Your task to perform on an android device: turn off translation in the chrome app Image 0: 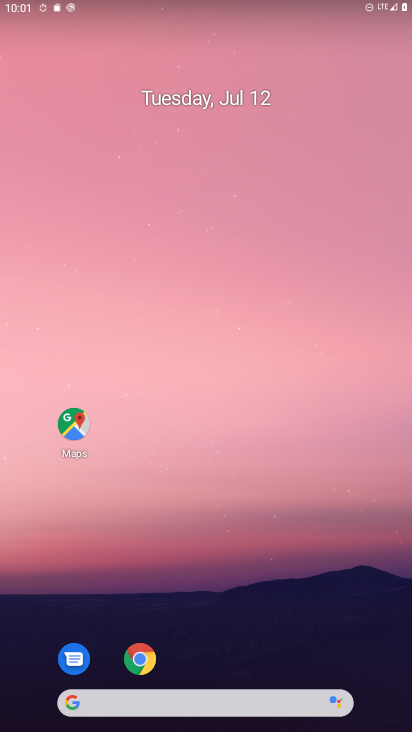
Step 0: drag from (370, 692) to (229, 18)
Your task to perform on an android device: turn off translation in the chrome app Image 1: 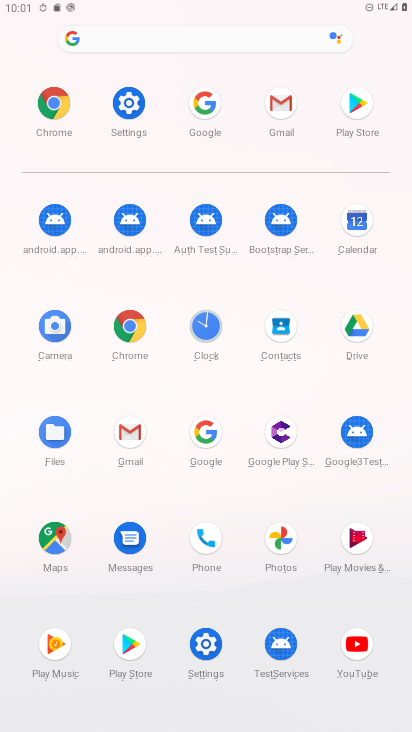
Step 1: click (140, 325)
Your task to perform on an android device: turn off translation in the chrome app Image 2: 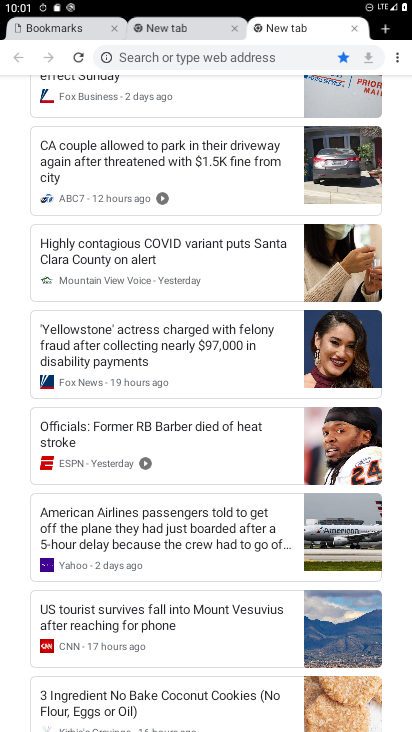
Step 2: click (397, 51)
Your task to perform on an android device: turn off translation in the chrome app Image 3: 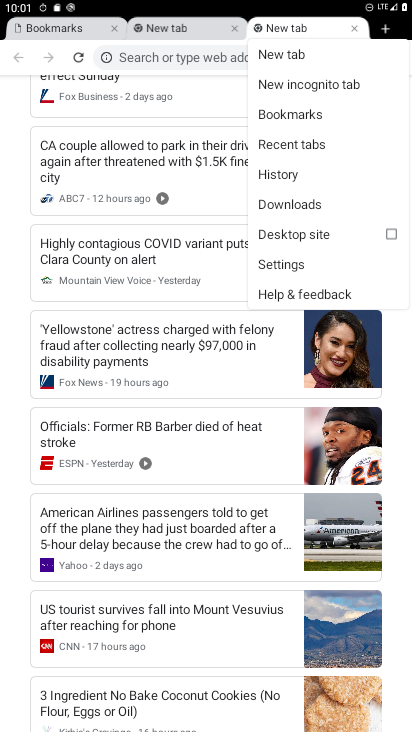
Step 3: click (300, 261)
Your task to perform on an android device: turn off translation in the chrome app Image 4: 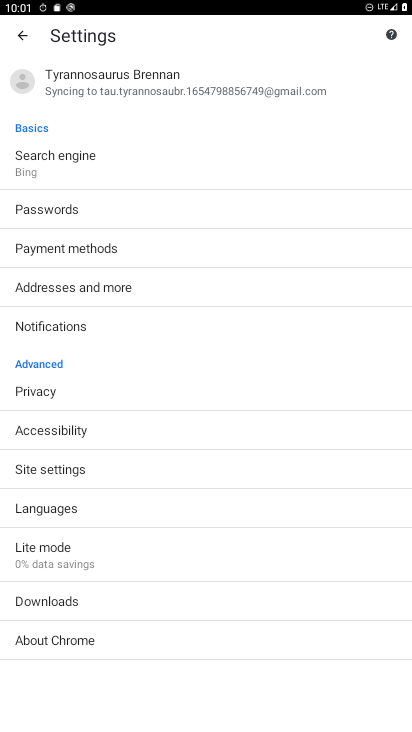
Step 4: click (118, 506)
Your task to perform on an android device: turn off translation in the chrome app Image 5: 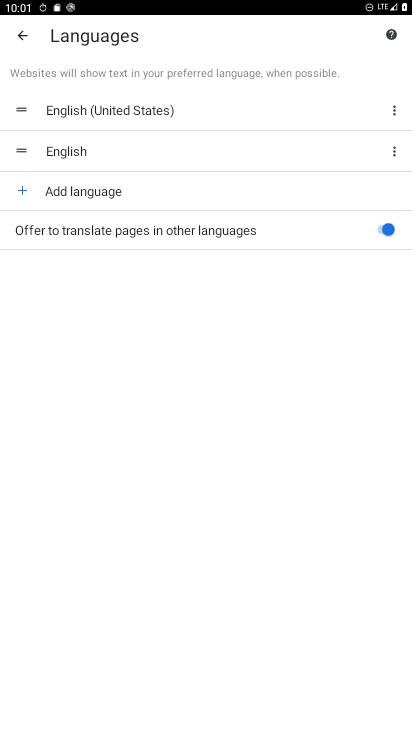
Step 5: click (377, 224)
Your task to perform on an android device: turn off translation in the chrome app Image 6: 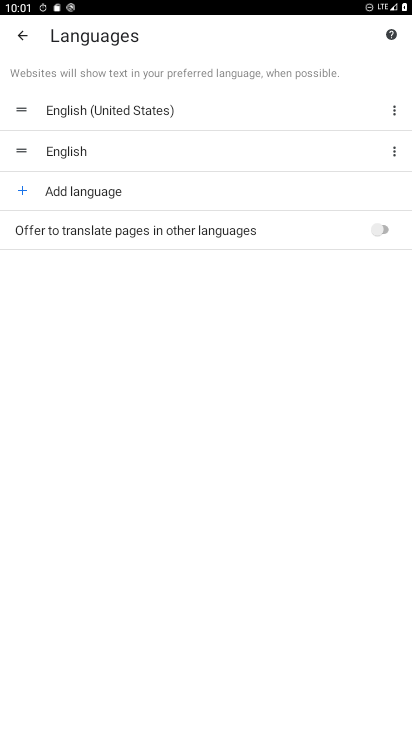
Step 6: task complete